Your task to perform on an android device: Is it going to rain today? Image 0: 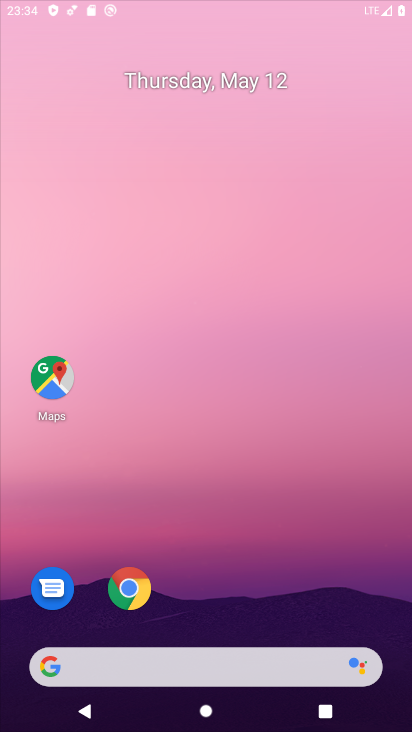
Step 0: click (240, 280)
Your task to perform on an android device: Is it going to rain today? Image 1: 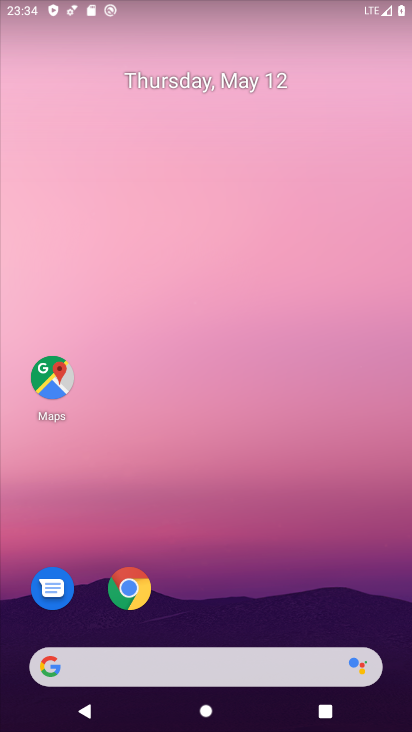
Step 1: drag from (215, 560) to (351, 111)
Your task to perform on an android device: Is it going to rain today? Image 2: 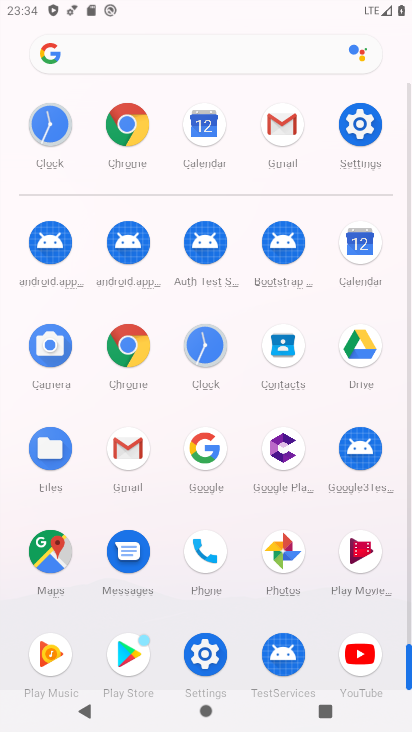
Step 2: click (240, 53)
Your task to perform on an android device: Is it going to rain today? Image 3: 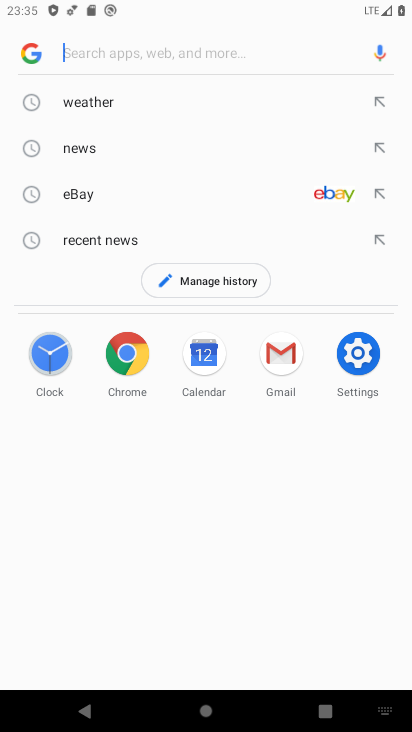
Step 3: type "rain today"
Your task to perform on an android device: Is it going to rain today? Image 4: 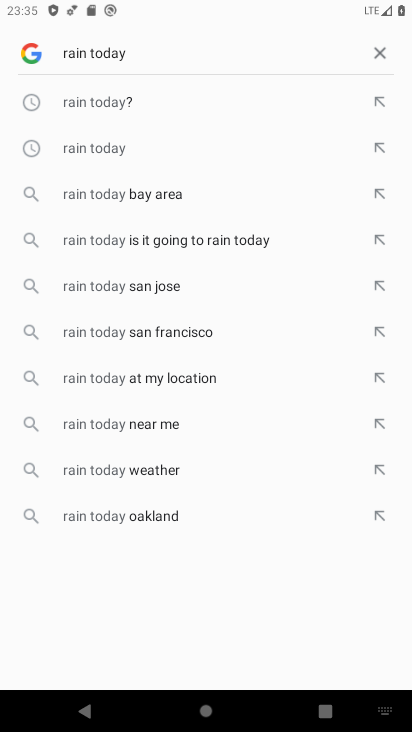
Step 4: click (139, 89)
Your task to perform on an android device: Is it going to rain today? Image 5: 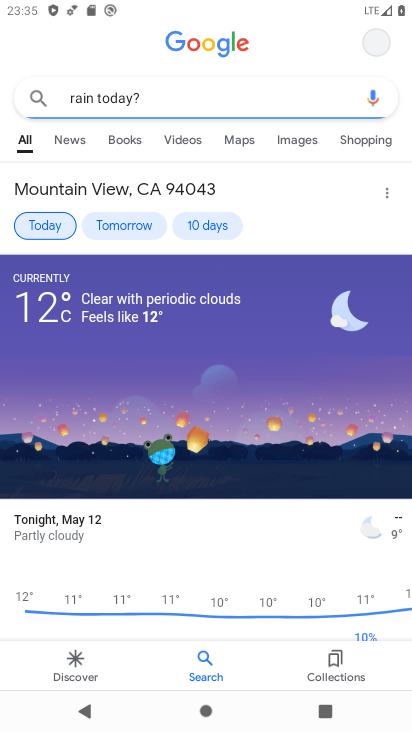
Step 5: task complete